Your task to perform on an android device: find snoozed emails in the gmail app Image 0: 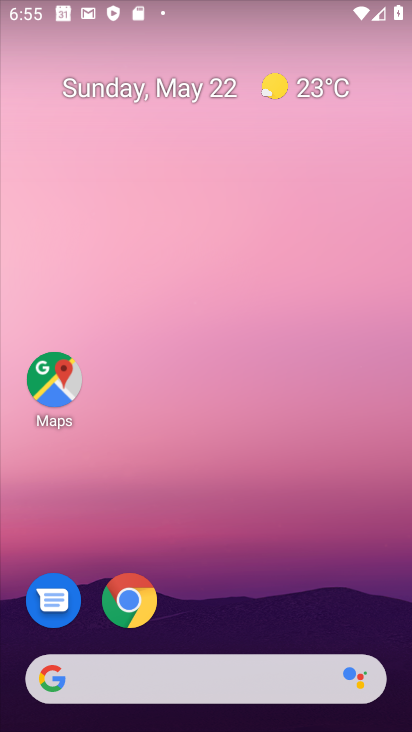
Step 0: drag from (385, 604) to (306, 91)
Your task to perform on an android device: find snoozed emails in the gmail app Image 1: 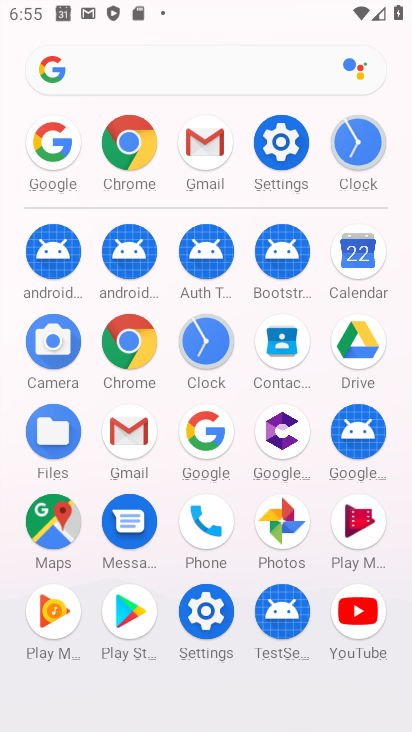
Step 1: click (103, 404)
Your task to perform on an android device: find snoozed emails in the gmail app Image 2: 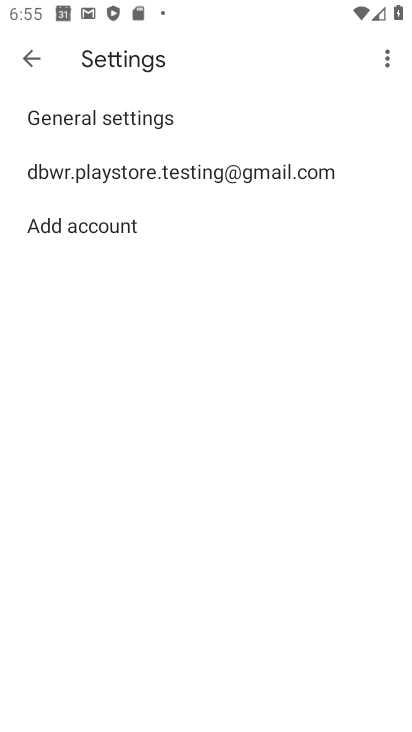
Step 2: click (216, 191)
Your task to perform on an android device: find snoozed emails in the gmail app Image 3: 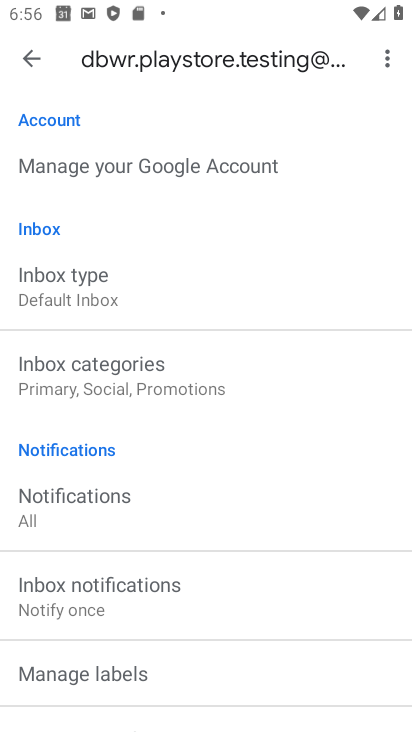
Step 3: press back button
Your task to perform on an android device: find snoozed emails in the gmail app Image 4: 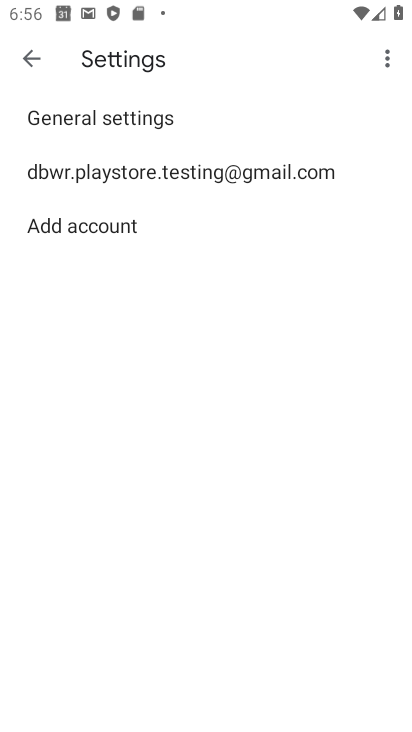
Step 4: press back button
Your task to perform on an android device: find snoozed emails in the gmail app Image 5: 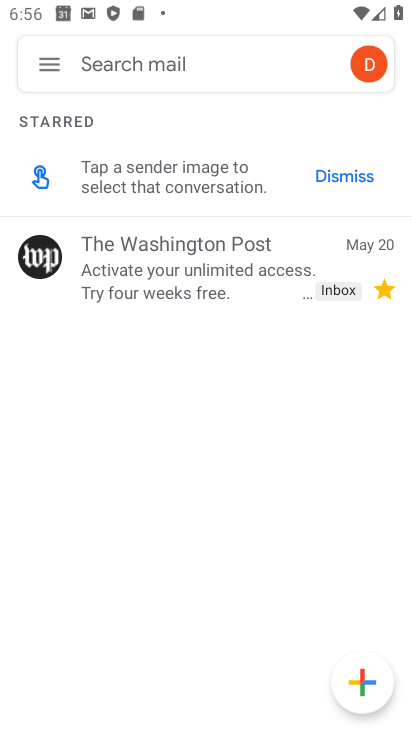
Step 5: click (39, 70)
Your task to perform on an android device: find snoozed emails in the gmail app Image 6: 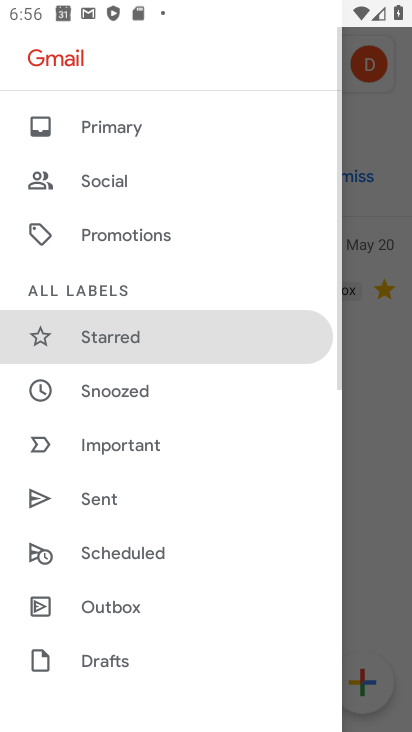
Step 6: click (116, 387)
Your task to perform on an android device: find snoozed emails in the gmail app Image 7: 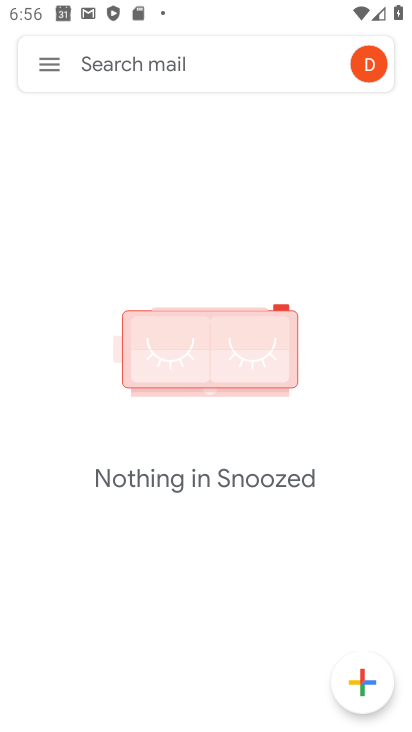
Step 7: task complete